Your task to perform on an android device: change the clock display to digital Image 0: 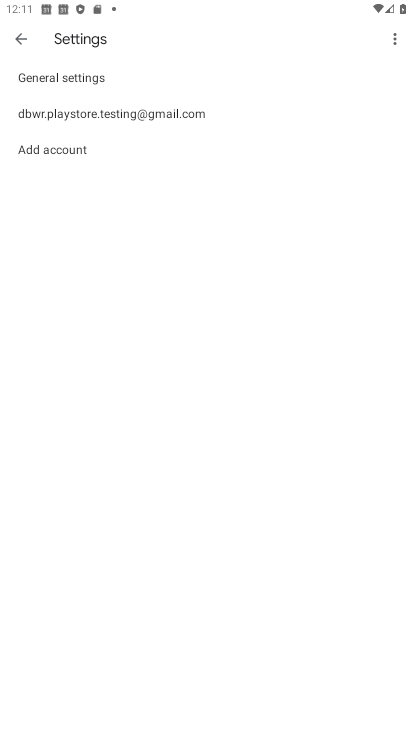
Step 0: press home button
Your task to perform on an android device: change the clock display to digital Image 1: 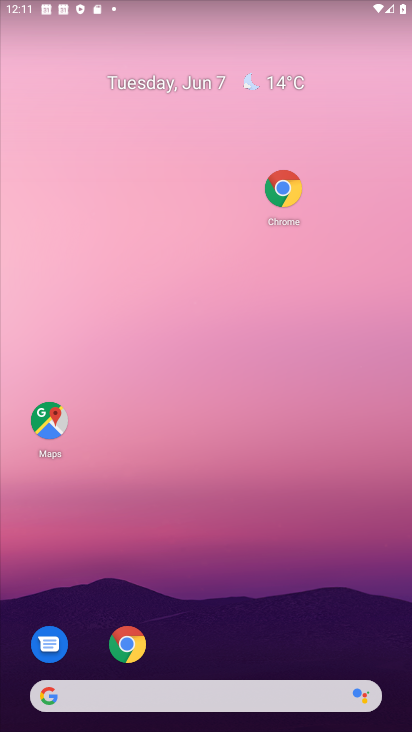
Step 1: drag from (298, 565) to (234, 48)
Your task to perform on an android device: change the clock display to digital Image 2: 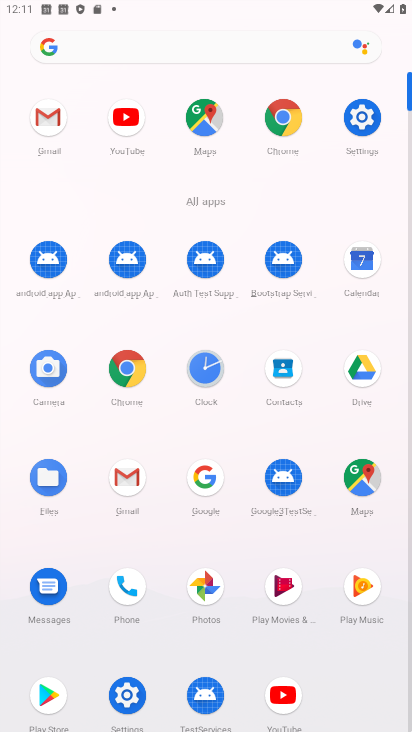
Step 2: click (213, 372)
Your task to perform on an android device: change the clock display to digital Image 3: 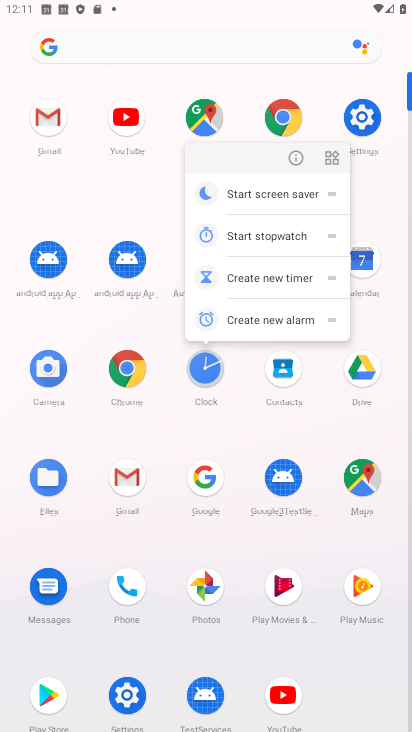
Step 3: click (210, 373)
Your task to perform on an android device: change the clock display to digital Image 4: 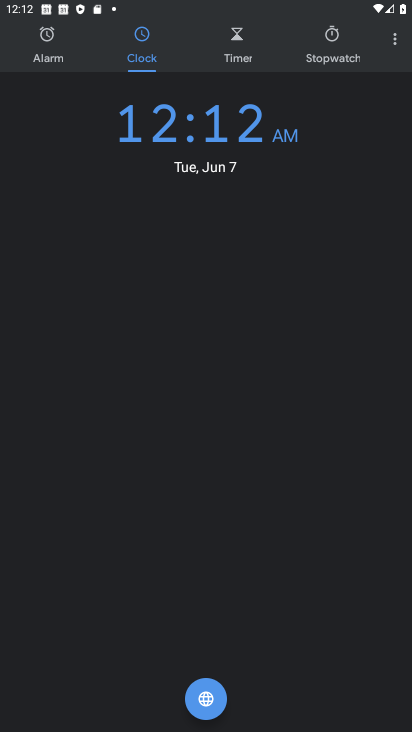
Step 4: click (392, 41)
Your task to perform on an android device: change the clock display to digital Image 5: 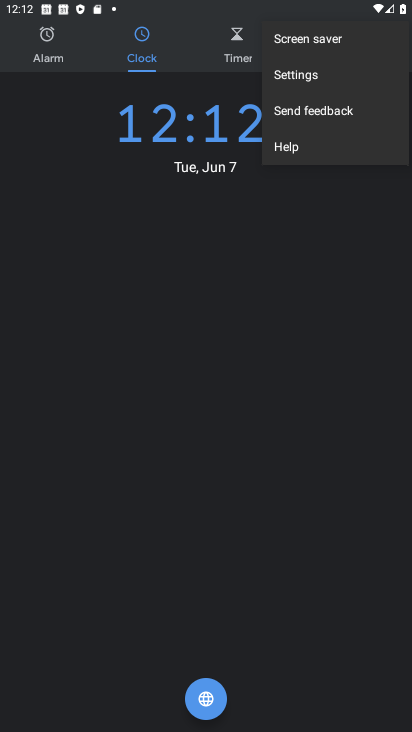
Step 5: click (338, 75)
Your task to perform on an android device: change the clock display to digital Image 6: 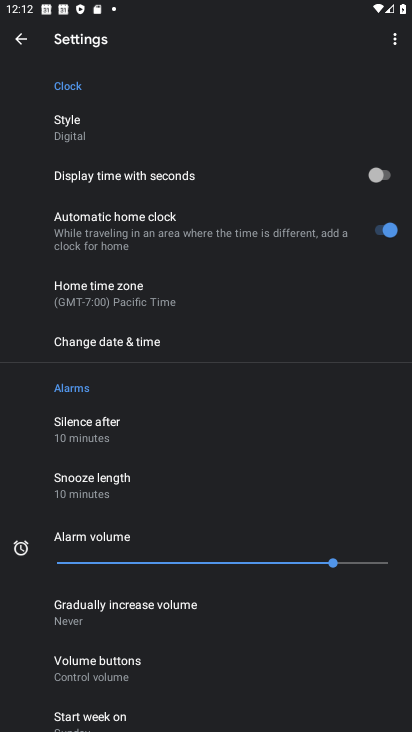
Step 6: task complete